Your task to perform on an android device: Search for seafood restaurants on Google Maps Image 0: 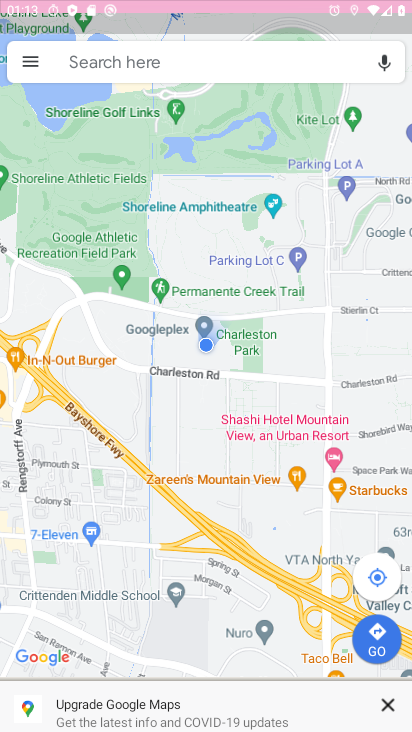
Step 0: press home button
Your task to perform on an android device: Search for seafood restaurants on Google Maps Image 1: 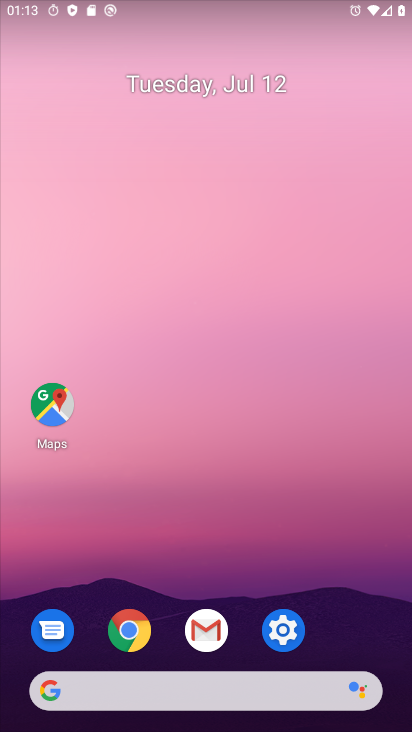
Step 1: click (49, 422)
Your task to perform on an android device: Search for seafood restaurants on Google Maps Image 2: 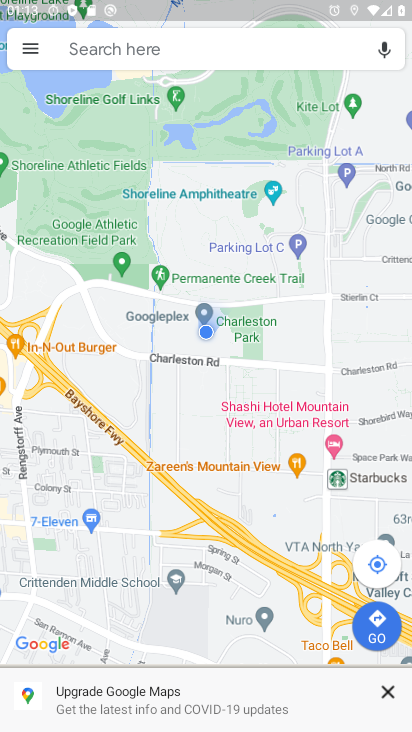
Step 2: click (130, 52)
Your task to perform on an android device: Search for seafood restaurants on Google Maps Image 3: 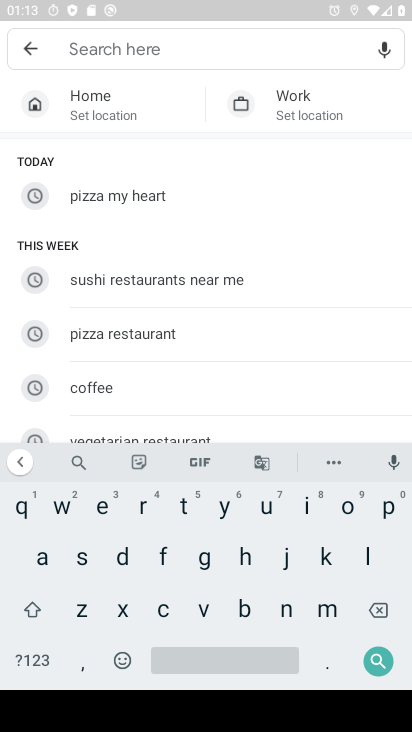
Step 3: click (75, 558)
Your task to perform on an android device: Search for seafood restaurants on Google Maps Image 4: 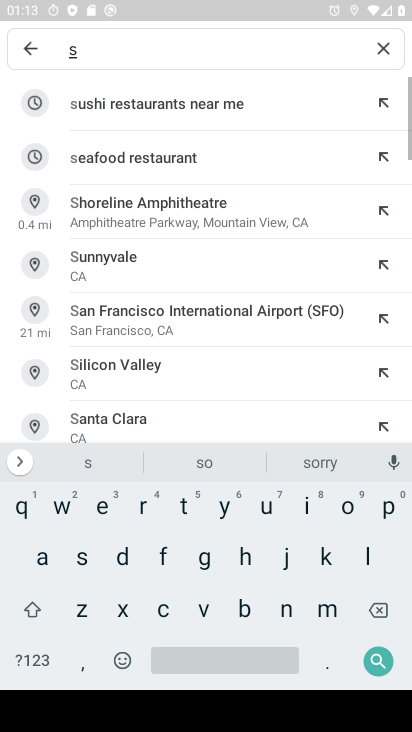
Step 4: click (97, 505)
Your task to perform on an android device: Search for seafood restaurants on Google Maps Image 5: 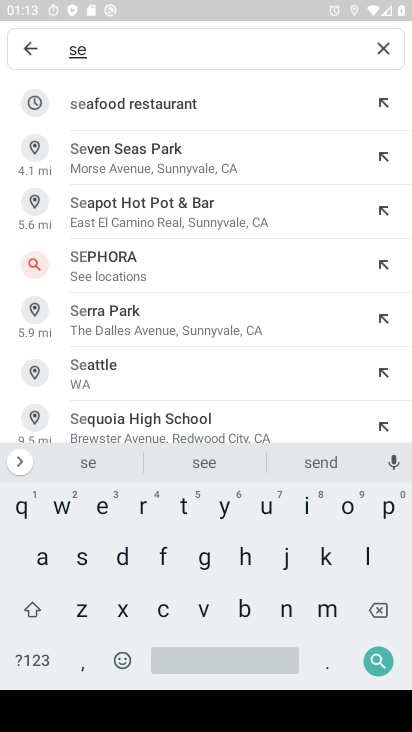
Step 5: click (145, 106)
Your task to perform on an android device: Search for seafood restaurants on Google Maps Image 6: 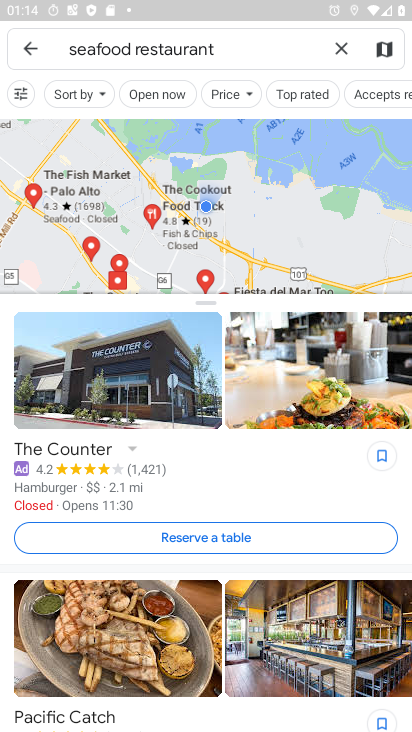
Step 6: task complete